Your task to perform on an android device: turn off location history Image 0: 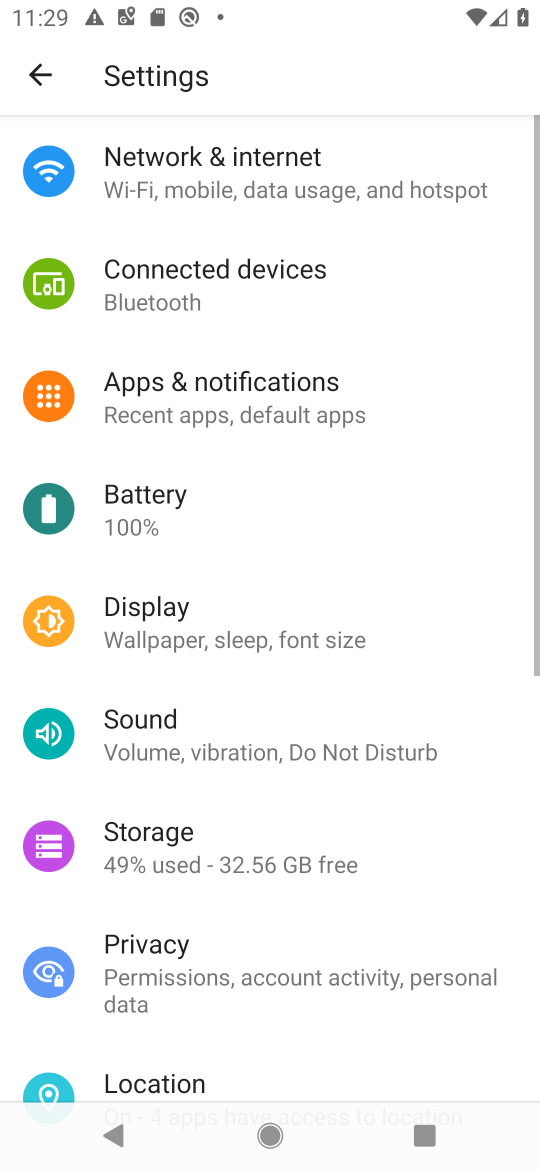
Step 0: press home button
Your task to perform on an android device: turn off location history Image 1: 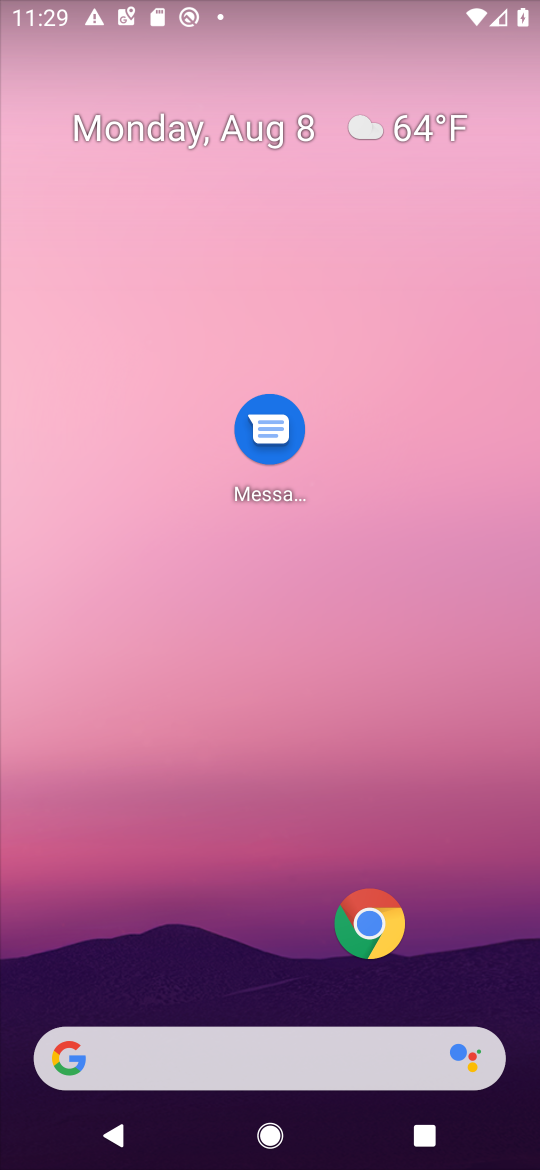
Step 1: click (386, 925)
Your task to perform on an android device: turn off location history Image 2: 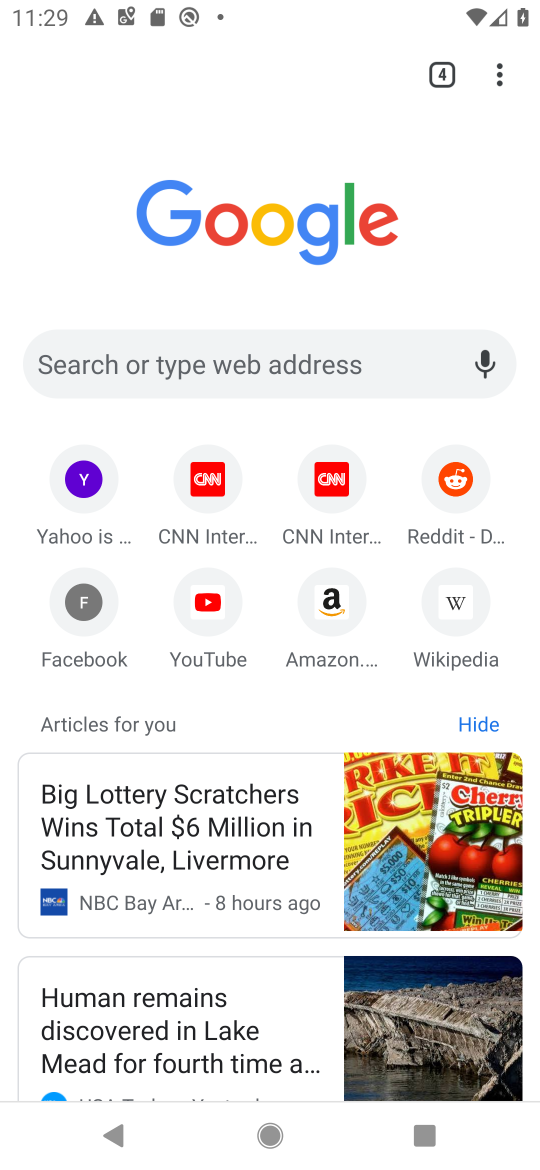
Step 2: click (501, 82)
Your task to perform on an android device: turn off location history Image 3: 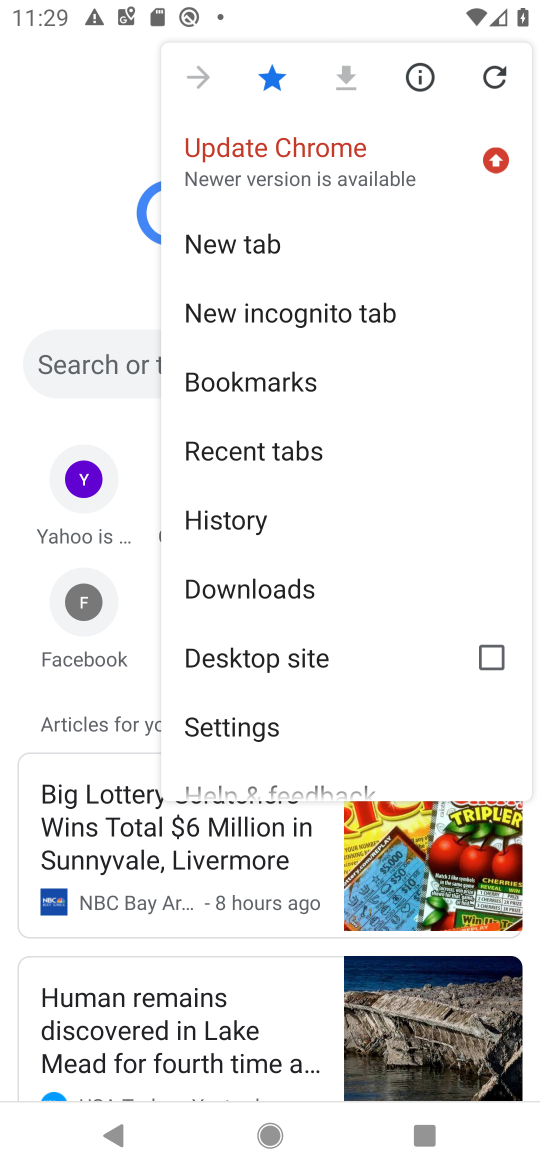
Step 3: click (230, 734)
Your task to perform on an android device: turn off location history Image 4: 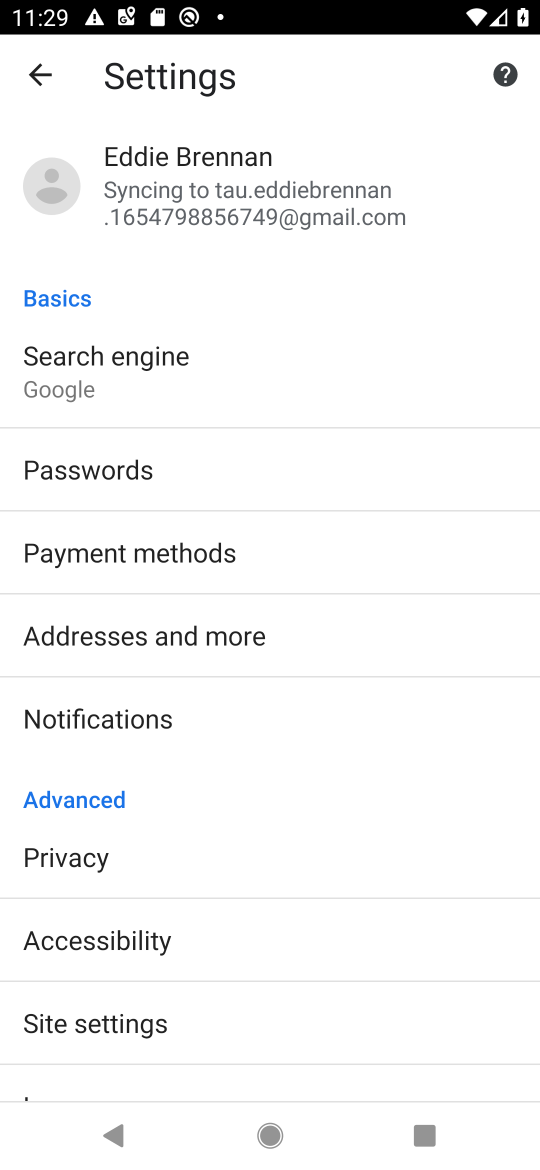
Step 4: click (67, 1017)
Your task to perform on an android device: turn off location history Image 5: 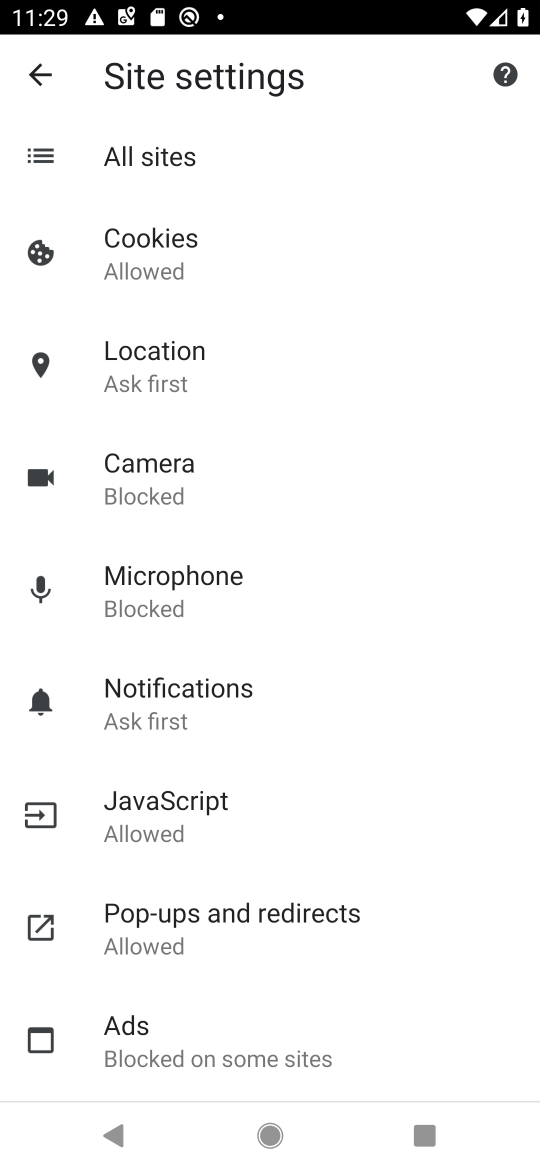
Step 5: click (135, 358)
Your task to perform on an android device: turn off location history Image 6: 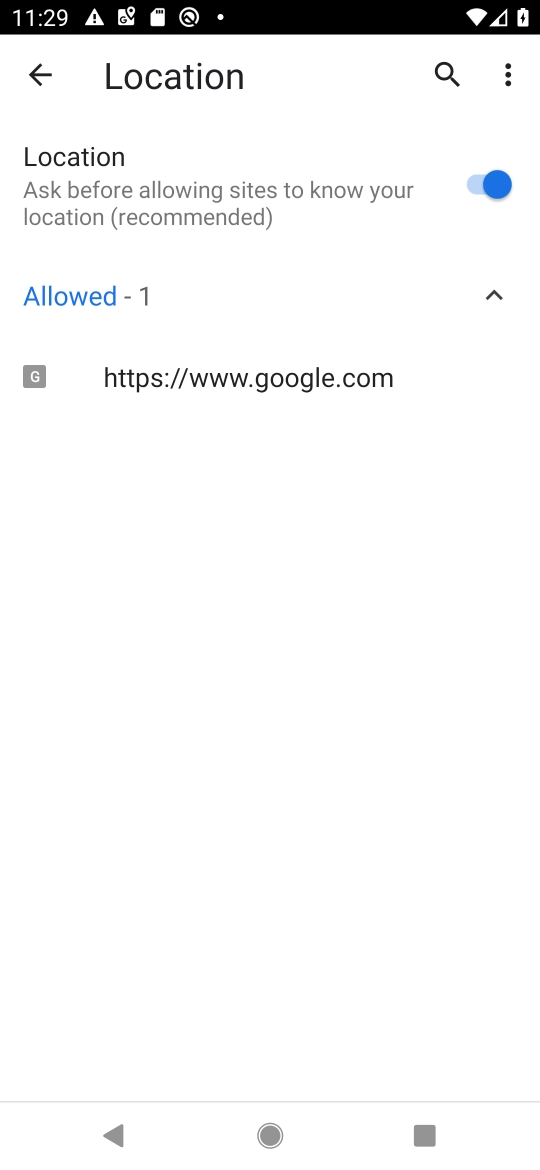
Step 6: click (485, 190)
Your task to perform on an android device: turn off location history Image 7: 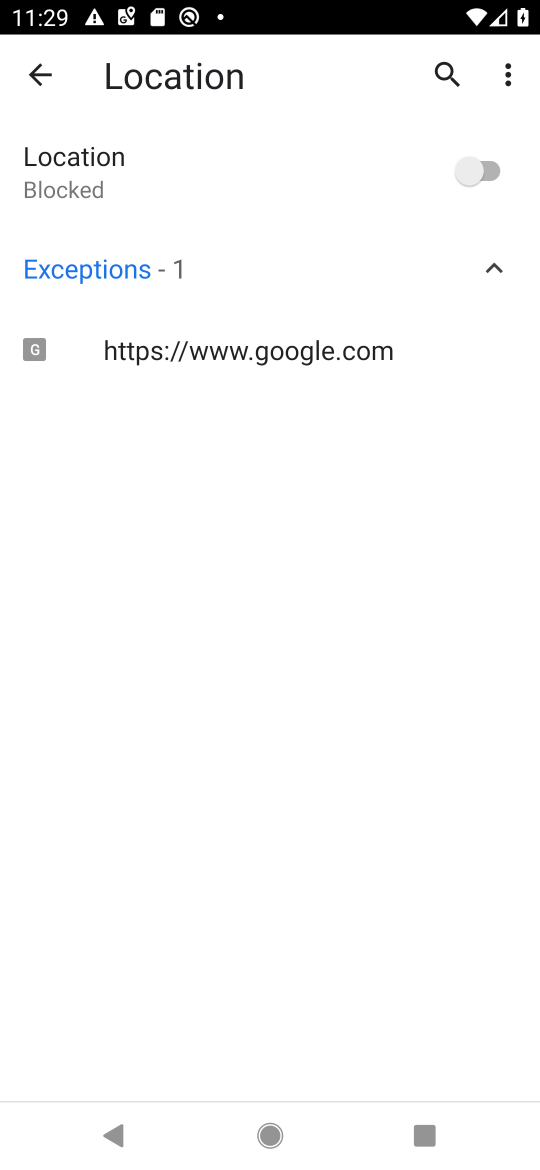
Step 7: task complete